Your task to perform on an android device: Open Reddit.com Image 0: 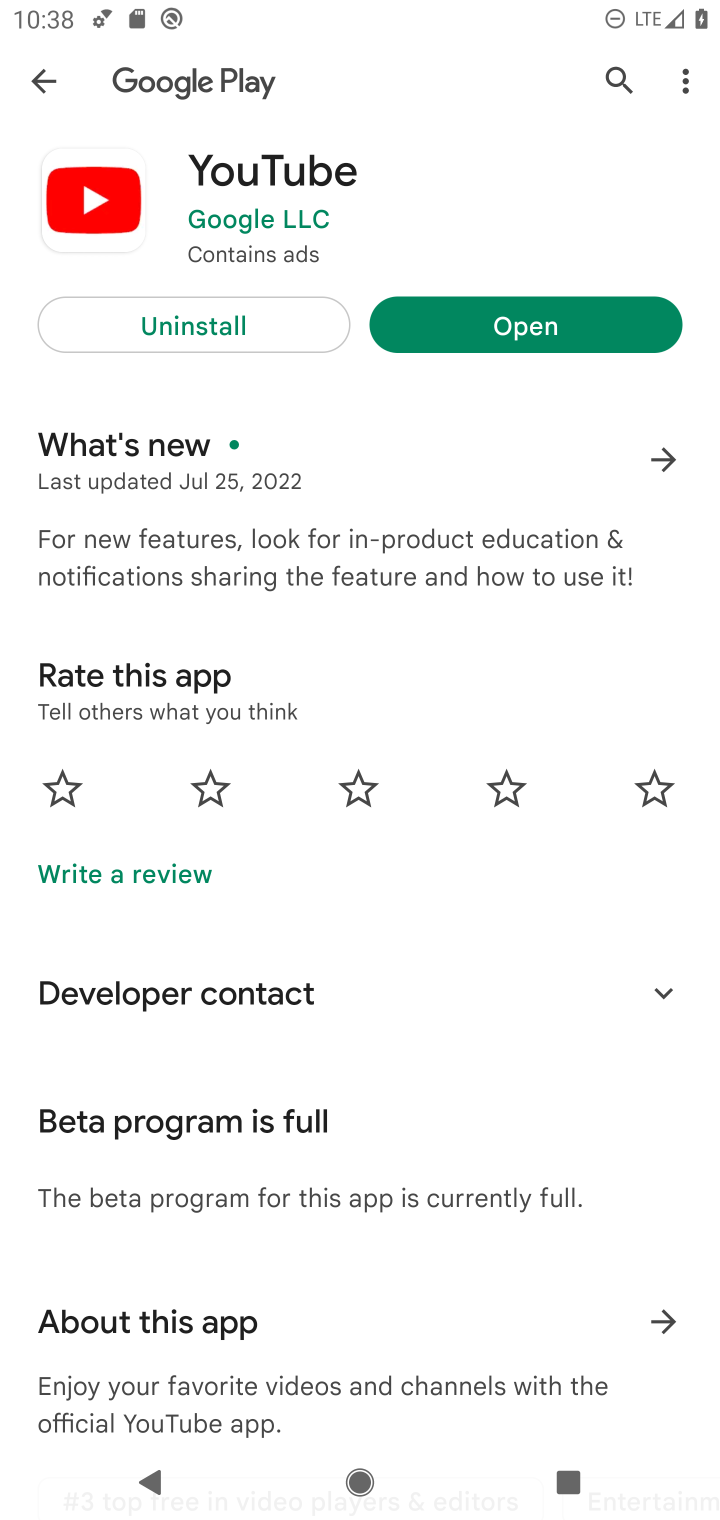
Step 0: press home button
Your task to perform on an android device: Open Reddit.com Image 1: 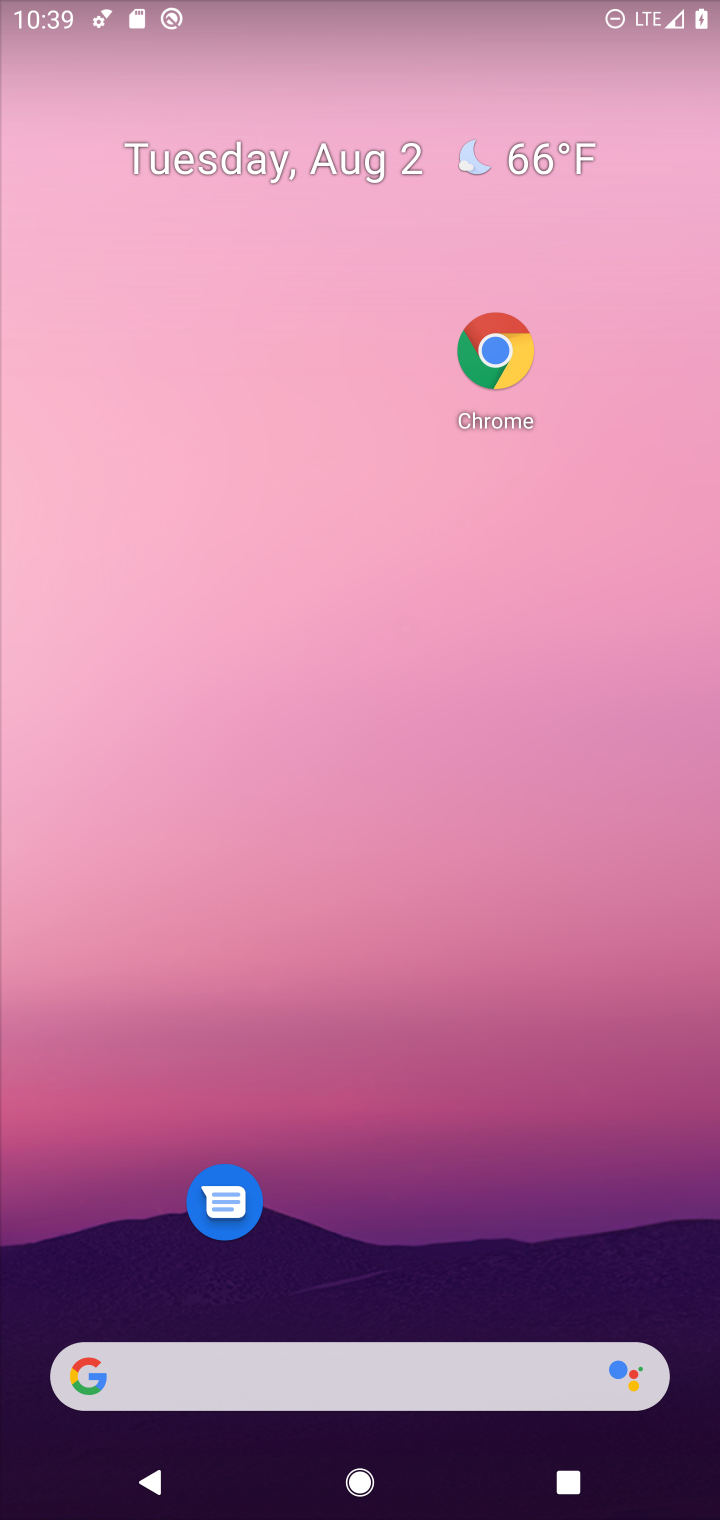
Step 1: click (509, 351)
Your task to perform on an android device: Open Reddit.com Image 2: 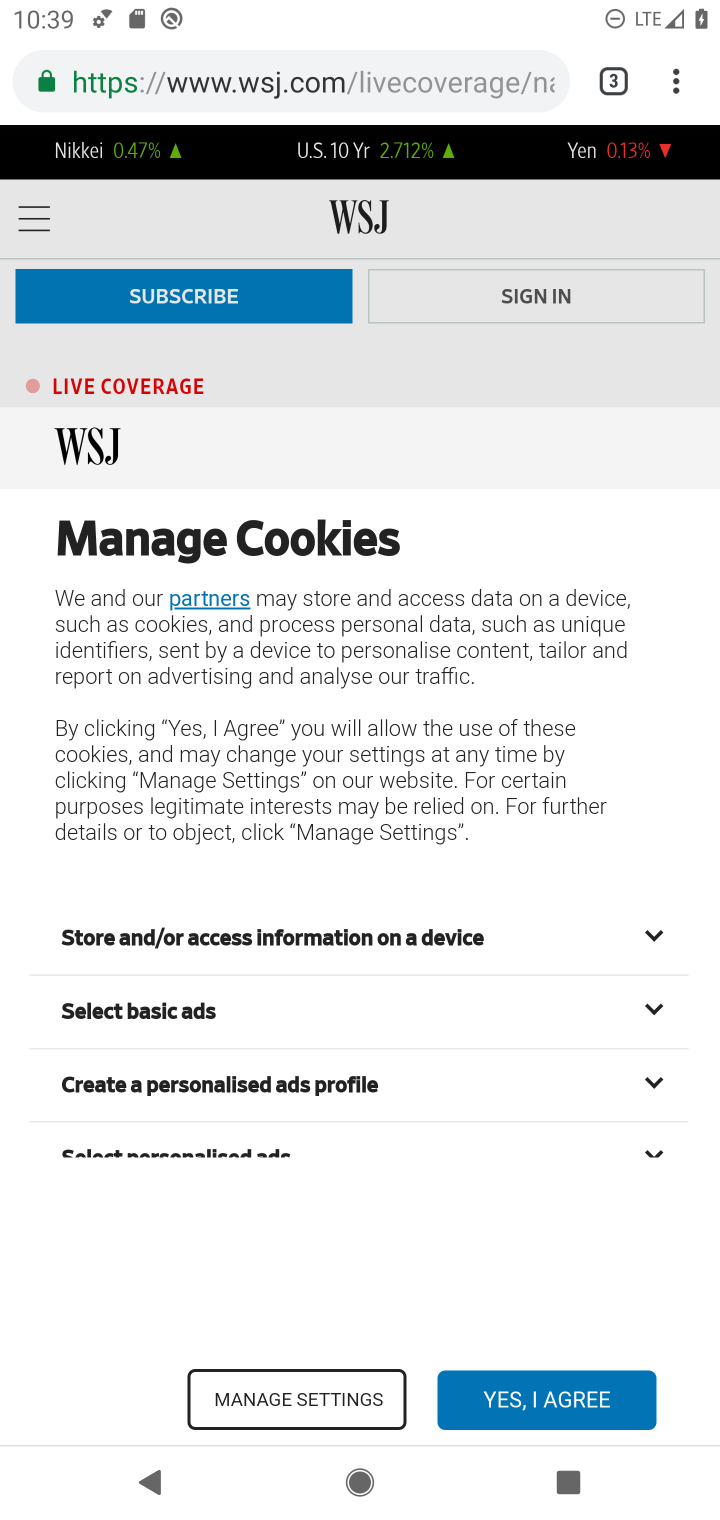
Step 2: click (406, 80)
Your task to perform on an android device: Open Reddit.com Image 3: 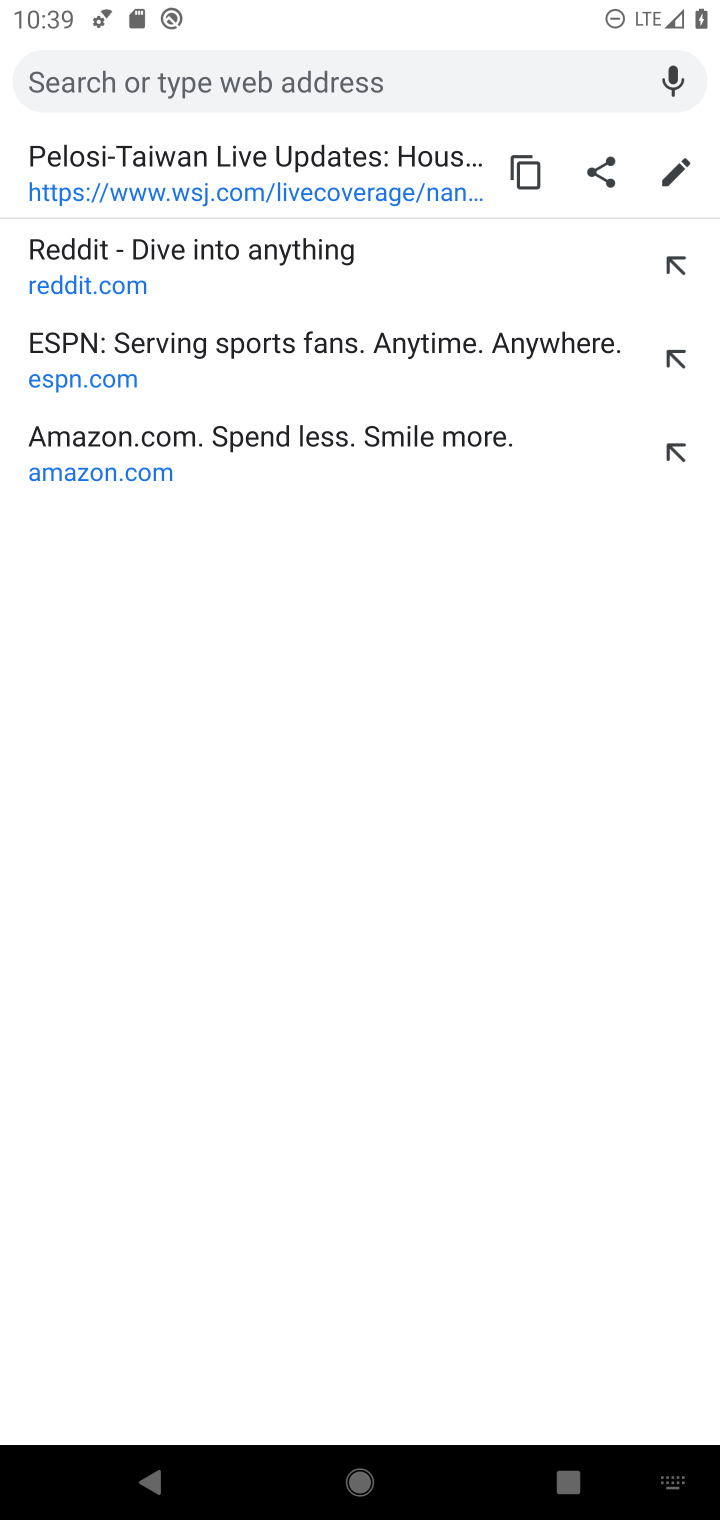
Step 3: click (58, 263)
Your task to perform on an android device: Open Reddit.com Image 4: 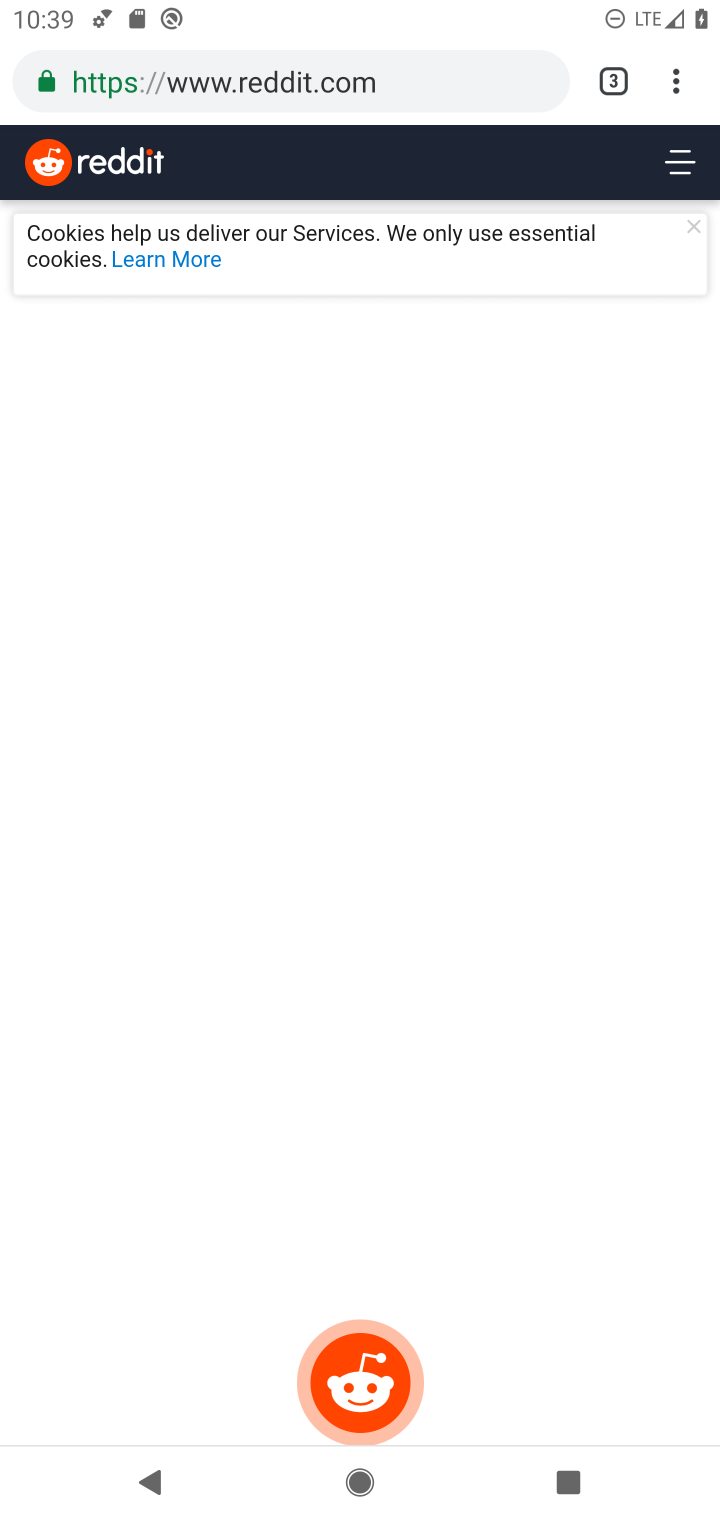
Step 4: task complete